Your task to perform on an android device: When is my next appointment? Image 0: 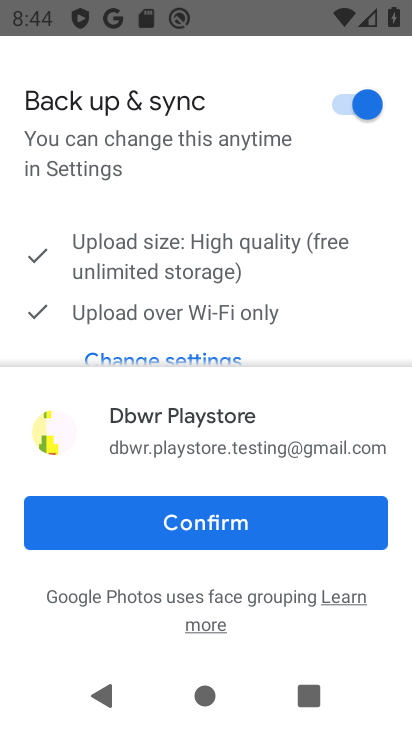
Step 0: press home button
Your task to perform on an android device: When is my next appointment? Image 1: 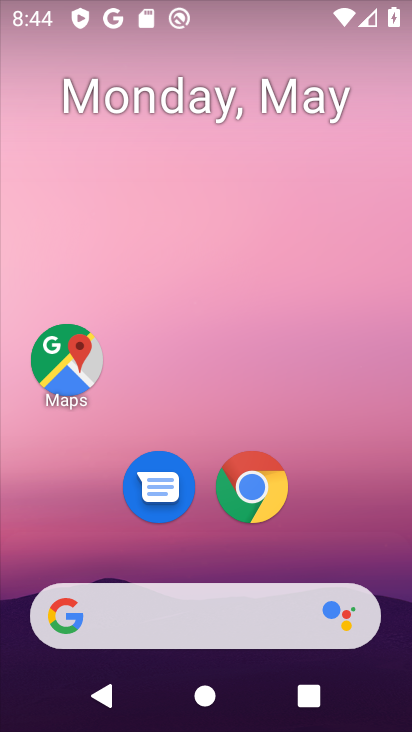
Step 1: click (171, 99)
Your task to perform on an android device: When is my next appointment? Image 2: 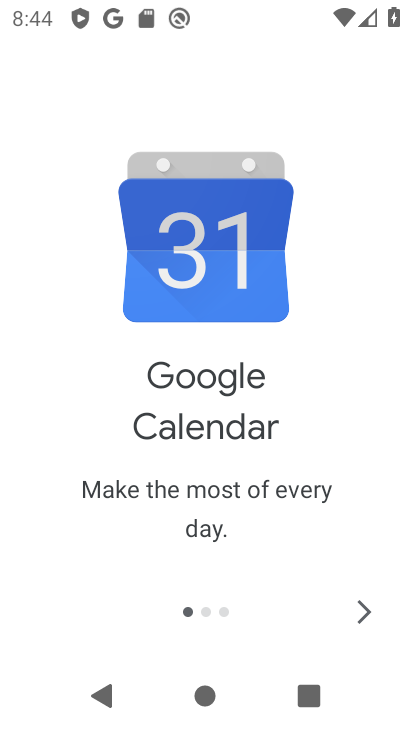
Step 2: click (378, 597)
Your task to perform on an android device: When is my next appointment? Image 3: 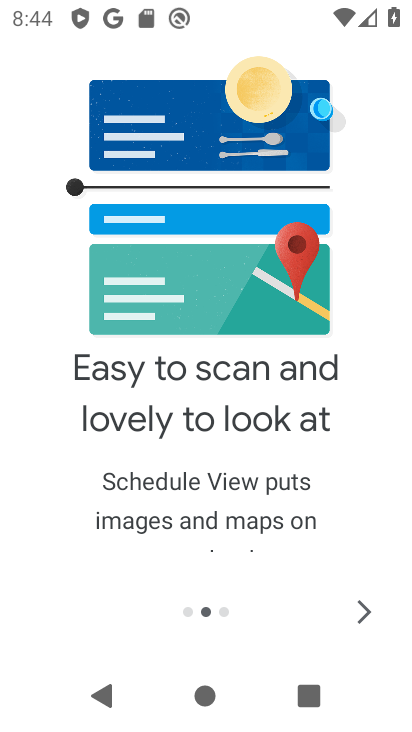
Step 3: click (378, 597)
Your task to perform on an android device: When is my next appointment? Image 4: 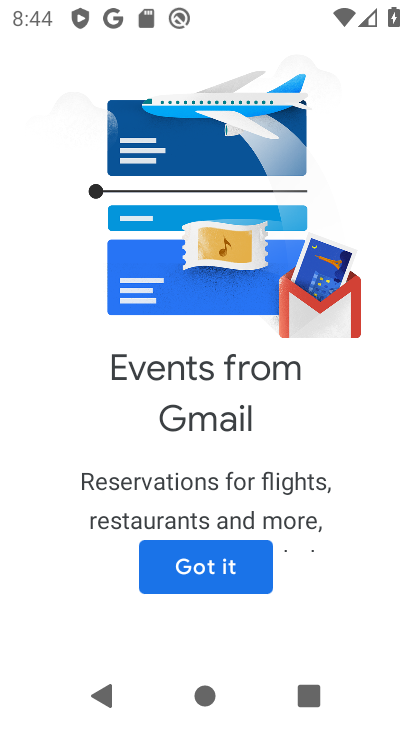
Step 4: click (214, 580)
Your task to perform on an android device: When is my next appointment? Image 5: 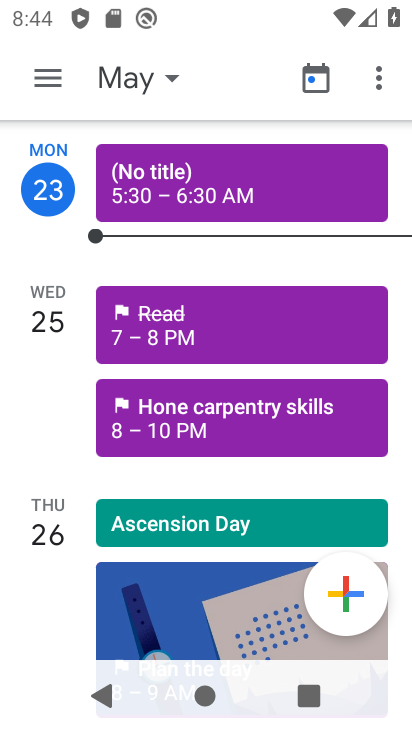
Step 5: click (206, 587)
Your task to perform on an android device: When is my next appointment? Image 6: 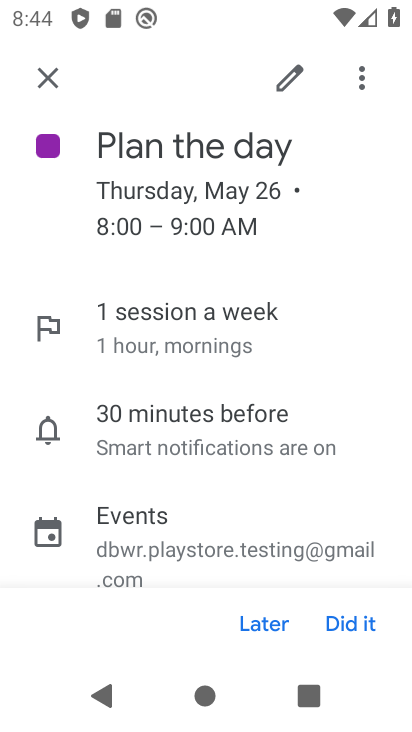
Step 6: task complete